Your task to perform on an android device: open app "Google Translate" (install if not already installed) Image 0: 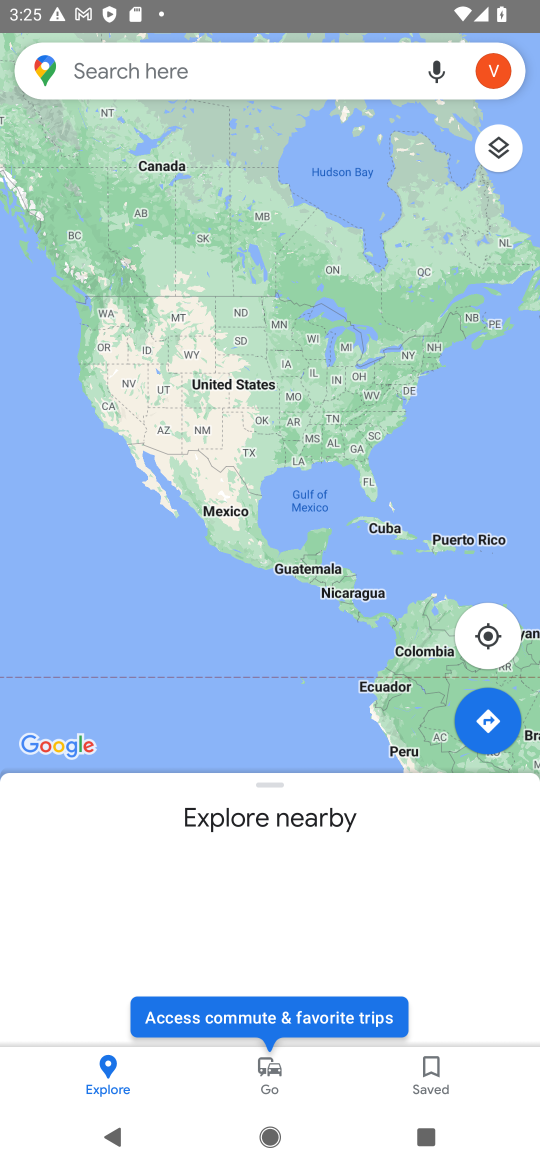
Step 0: press home button
Your task to perform on an android device: open app "Google Translate" (install if not already installed) Image 1: 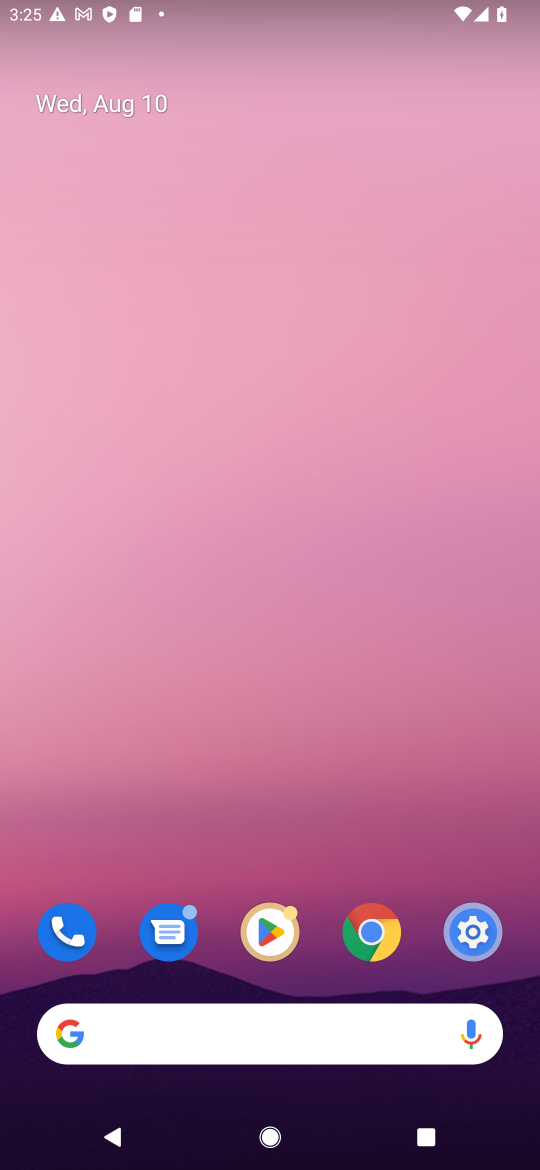
Step 1: drag from (211, 990) to (100, 46)
Your task to perform on an android device: open app "Google Translate" (install if not already installed) Image 2: 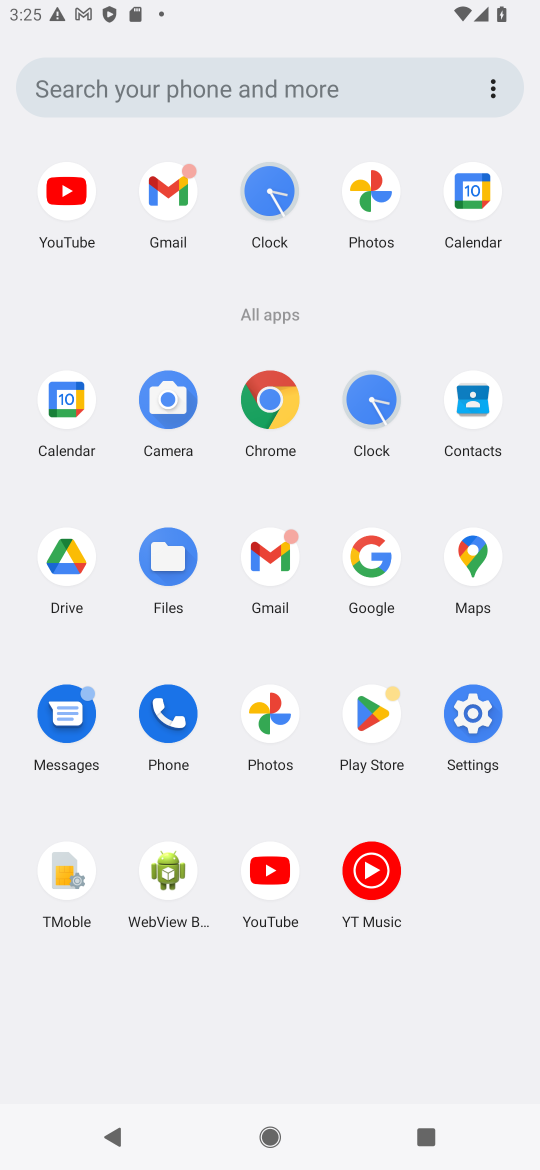
Step 2: click (361, 721)
Your task to perform on an android device: open app "Google Translate" (install if not already installed) Image 3: 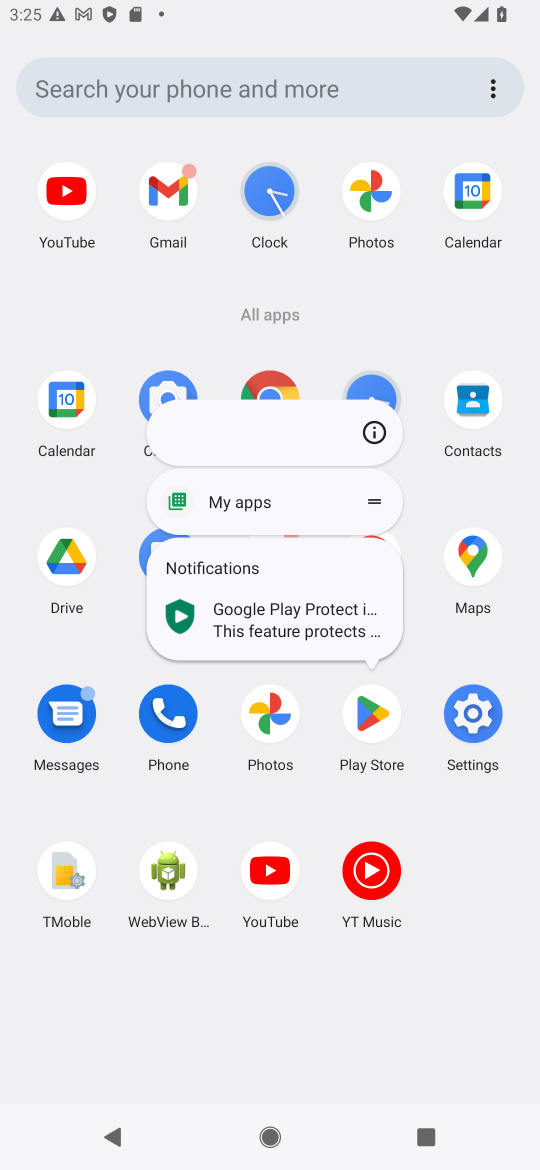
Step 3: click (361, 720)
Your task to perform on an android device: open app "Google Translate" (install if not already installed) Image 4: 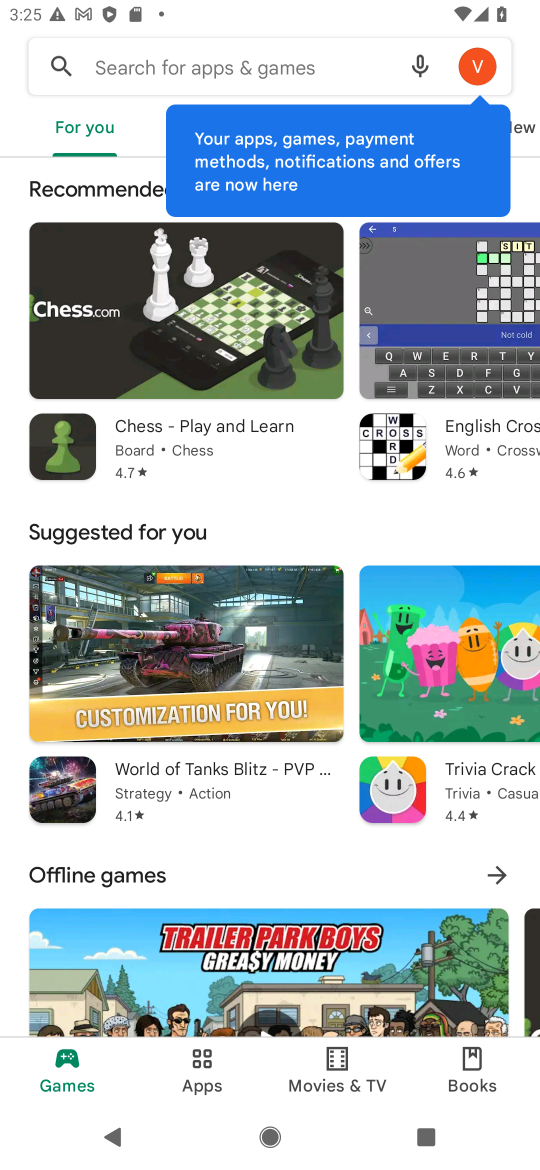
Step 4: click (208, 64)
Your task to perform on an android device: open app "Google Translate" (install if not already installed) Image 5: 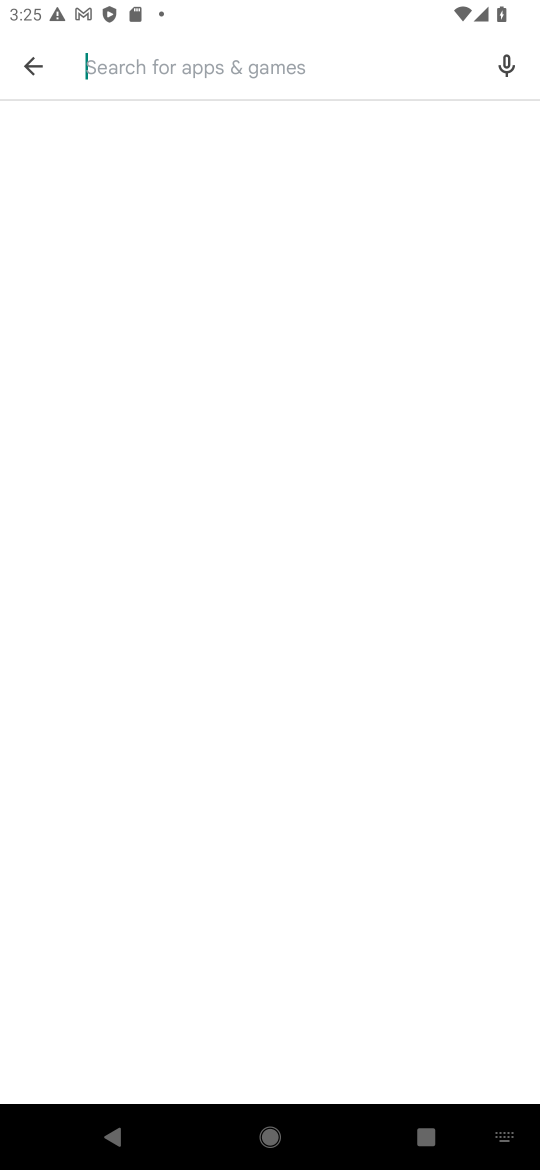
Step 5: type "Google Translate"
Your task to perform on an android device: open app "Google Translate" (install if not already installed) Image 6: 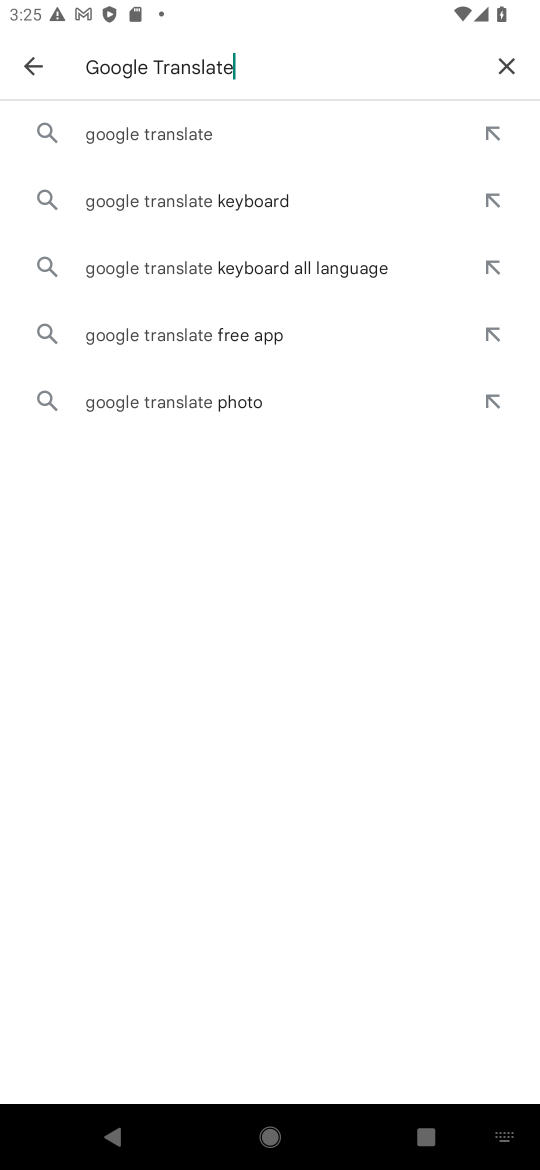
Step 6: click (198, 139)
Your task to perform on an android device: open app "Google Translate" (install if not already installed) Image 7: 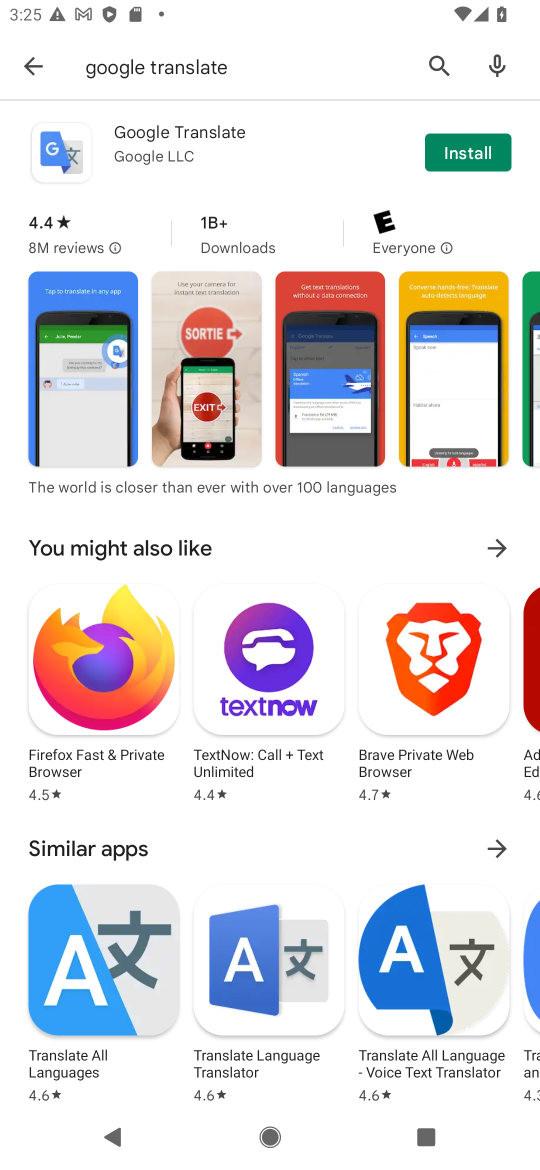
Step 7: click (482, 141)
Your task to perform on an android device: open app "Google Translate" (install if not already installed) Image 8: 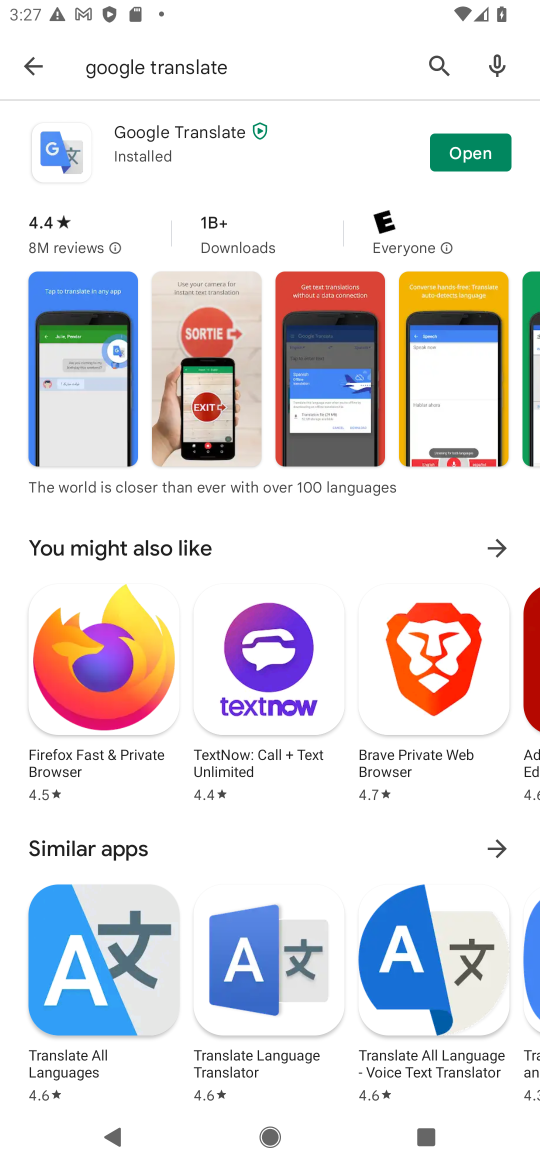
Step 8: click (442, 150)
Your task to perform on an android device: open app "Google Translate" (install if not already installed) Image 9: 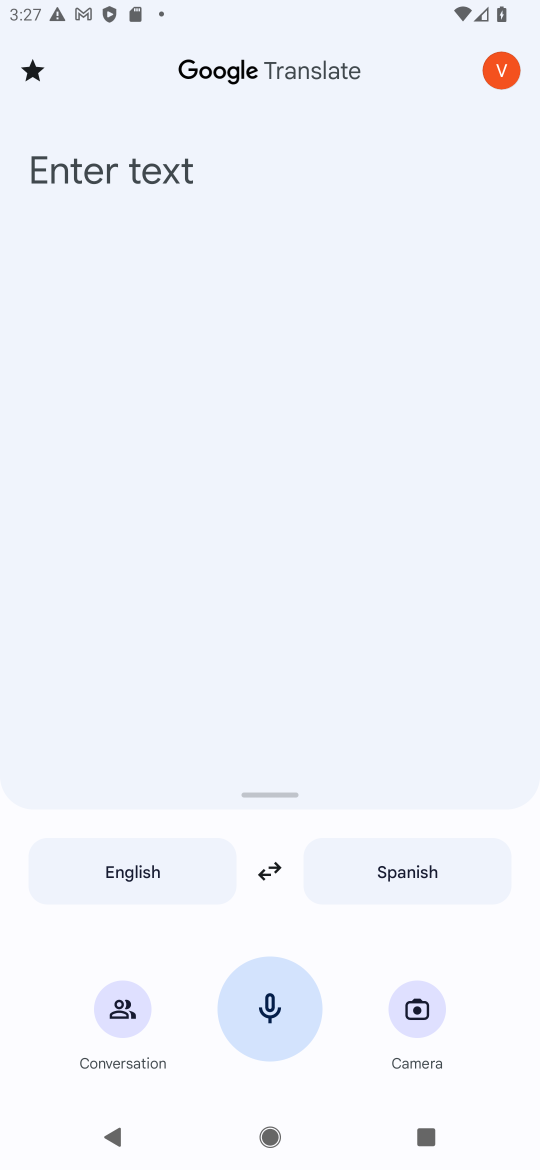
Step 9: task complete